Your task to perform on an android device: Search for apple airpods on bestbuy, select the first entry, and add it to the cart. Image 0: 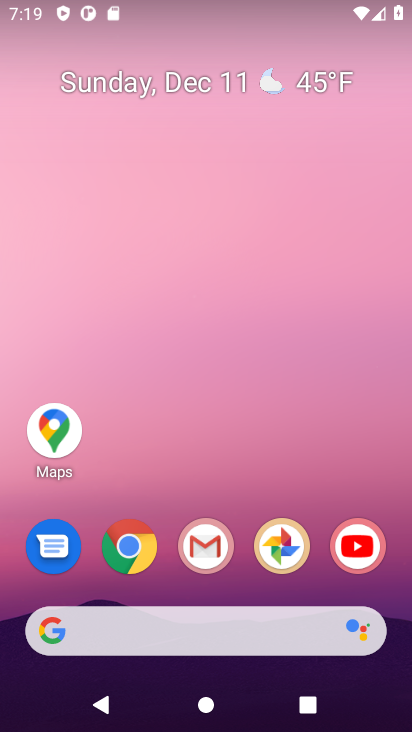
Step 0: click (123, 544)
Your task to perform on an android device: Search for apple airpods on bestbuy, select the first entry, and add it to the cart. Image 1: 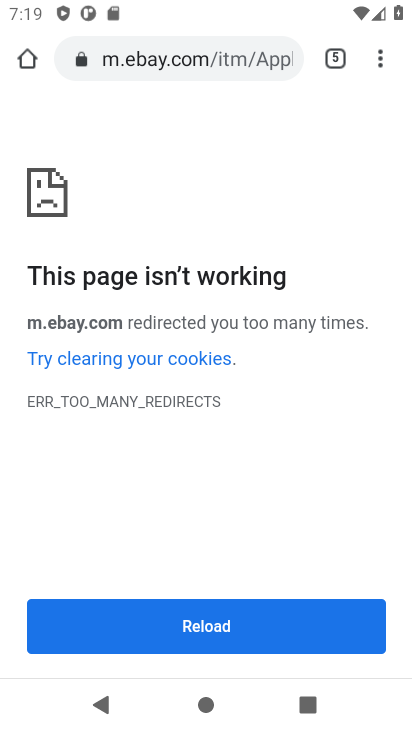
Step 1: click (193, 59)
Your task to perform on an android device: Search for apple airpods on bestbuy, select the first entry, and add it to the cart. Image 2: 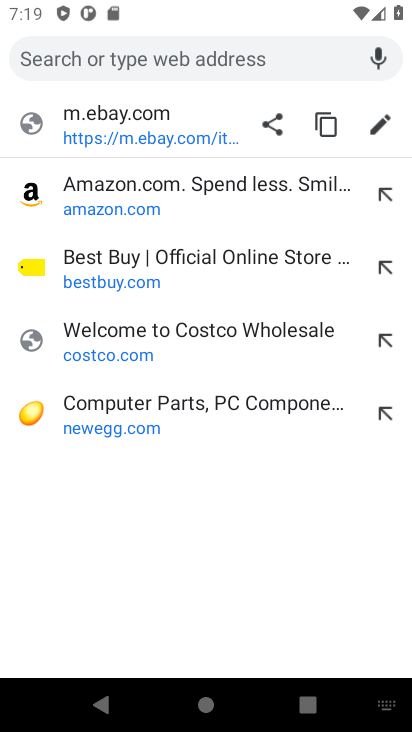
Step 2: click (103, 279)
Your task to perform on an android device: Search for apple airpods on bestbuy, select the first entry, and add it to the cart. Image 3: 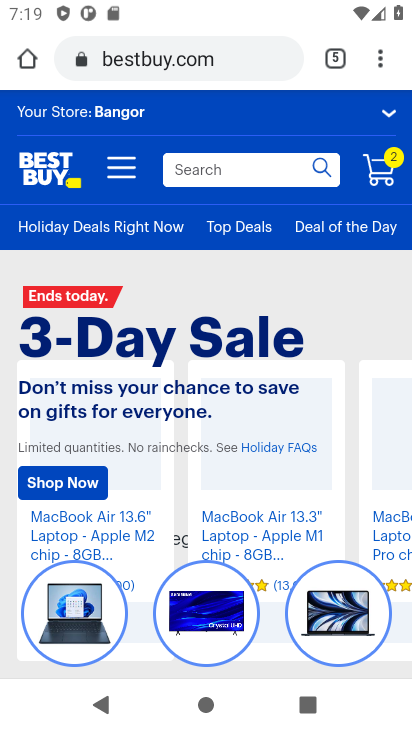
Step 3: click (230, 175)
Your task to perform on an android device: Search for apple airpods on bestbuy, select the first entry, and add it to the cart. Image 4: 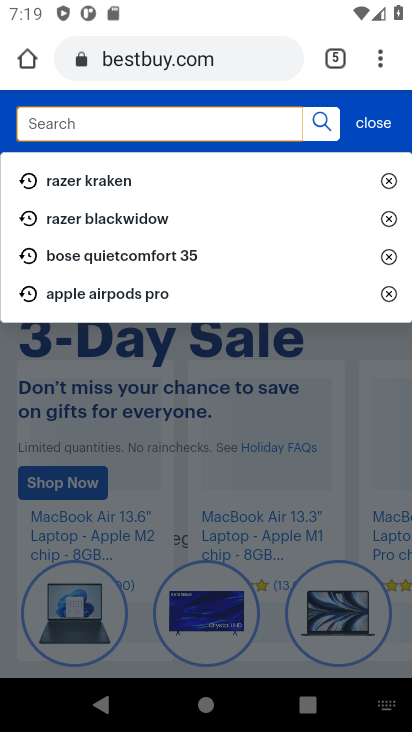
Step 4: type "apple airpods"
Your task to perform on an android device: Search for apple airpods on bestbuy, select the first entry, and add it to the cart. Image 5: 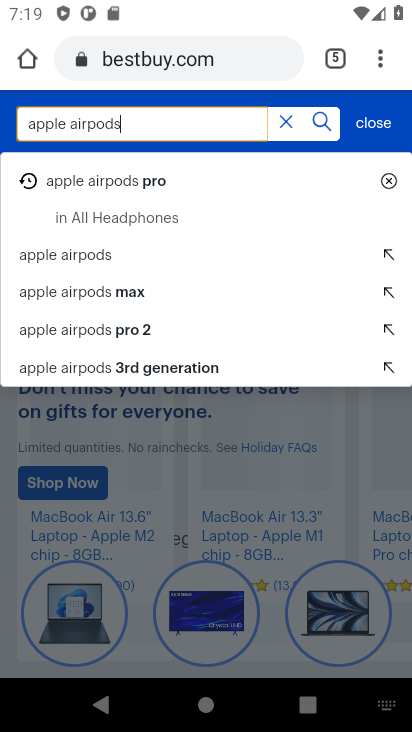
Step 5: click (91, 259)
Your task to perform on an android device: Search for apple airpods on bestbuy, select the first entry, and add it to the cart. Image 6: 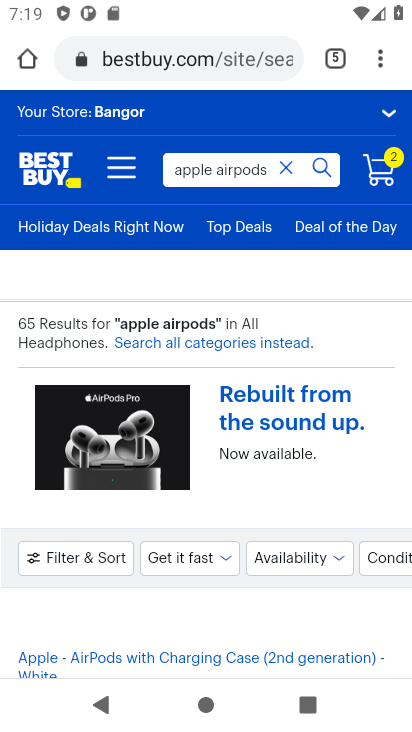
Step 6: drag from (216, 466) to (217, 127)
Your task to perform on an android device: Search for apple airpods on bestbuy, select the first entry, and add it to the cart. Image 7: 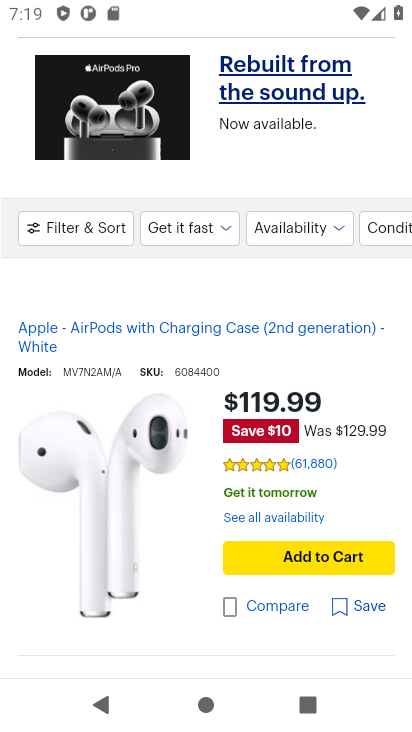
Step 7: drag from (191, 450) to (185, 269)
Your task to perform on an android device: Search for apple airpods on bestbuy, select the first entry, and add it to the cart. Image 8: 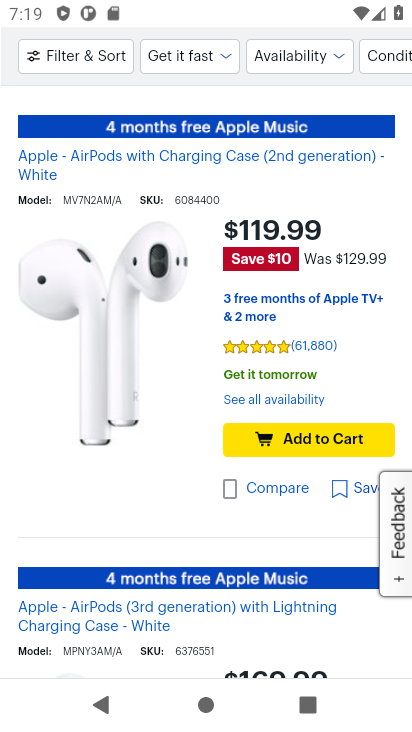
Step 8: click (298, 445)
Your task to perform on an android device: Search for apple airpods on bestbuy, select the first entry, and add it to the cart. Image 9: 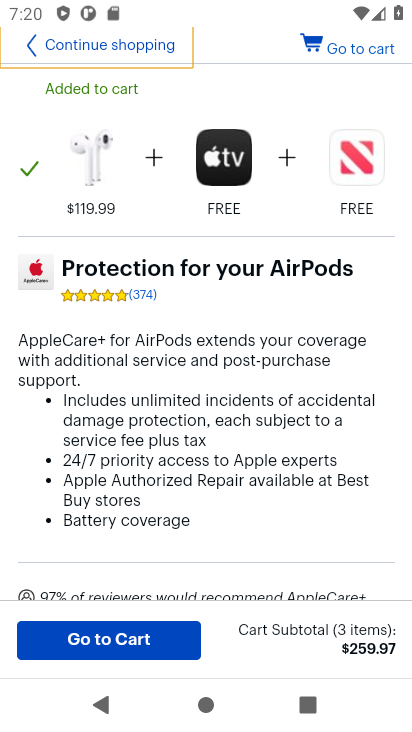
Step 9: task complete